Your task to perform on an android device: empty trash in google photos Image 0: 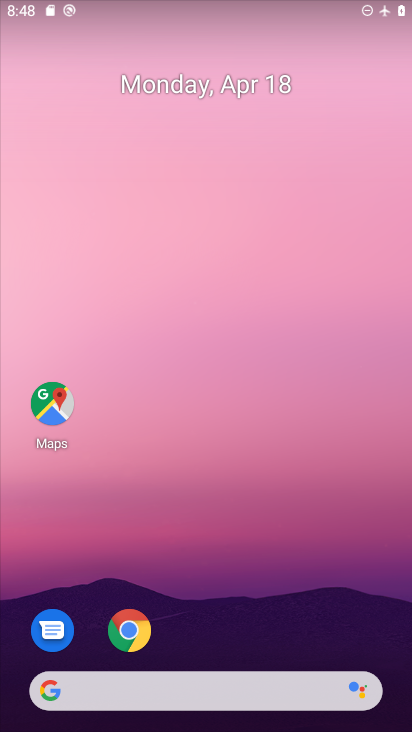
Step 0: drag from (208, 568) to (348, 8)
Your task to perform on an android device: empty trash in google photos Image 1: 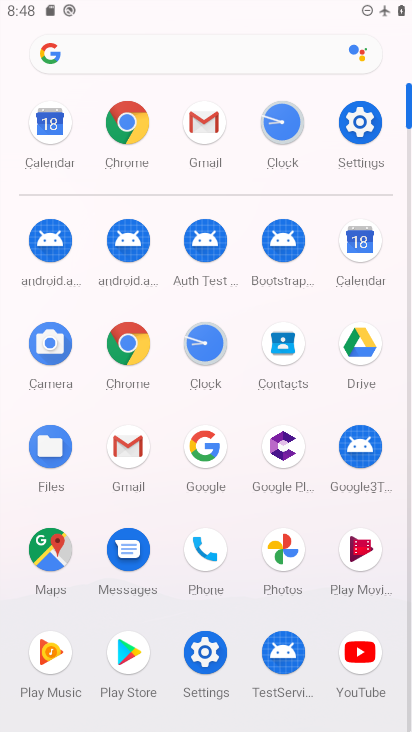
Step 1: click (284, 540)
Your task to perform on an android device: empty trash in google photos Image 2: 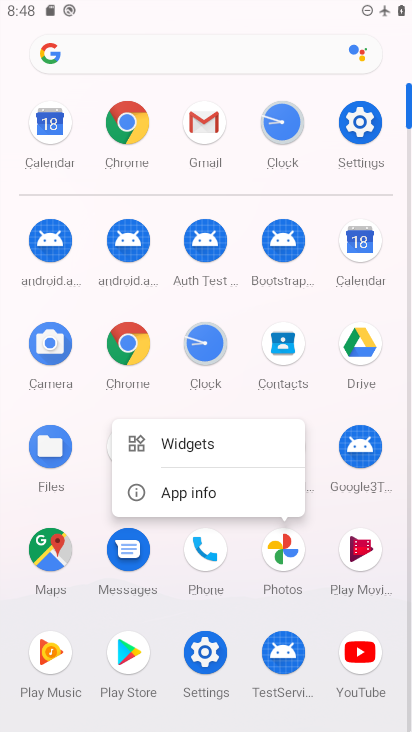
Step 2: click (282, 555)
Your task to perform on an android device: empty trash in google photos Image 3: 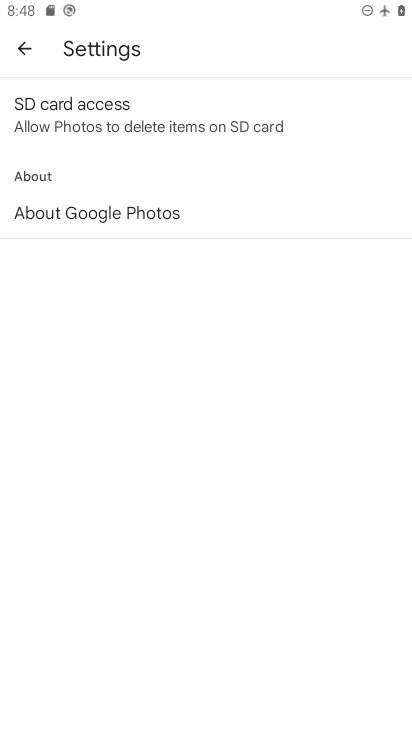
Step 3: click (29, 51)
Your task to perform on an android device: empty trash in google photos Image 4: 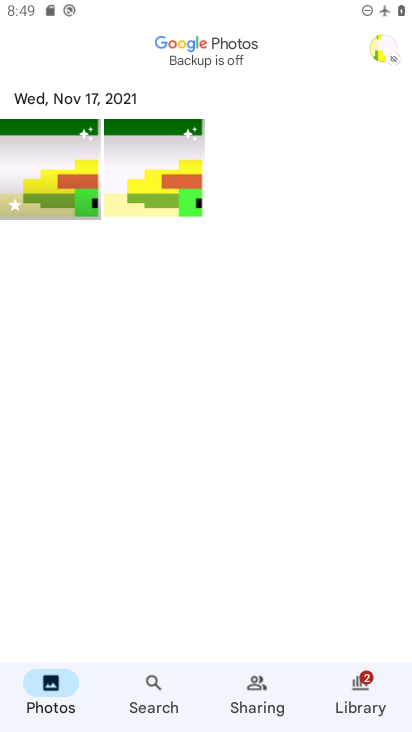
Step 4: click (364, 686)
Your task to perform on an android device: empty trash in google photos Image 5: 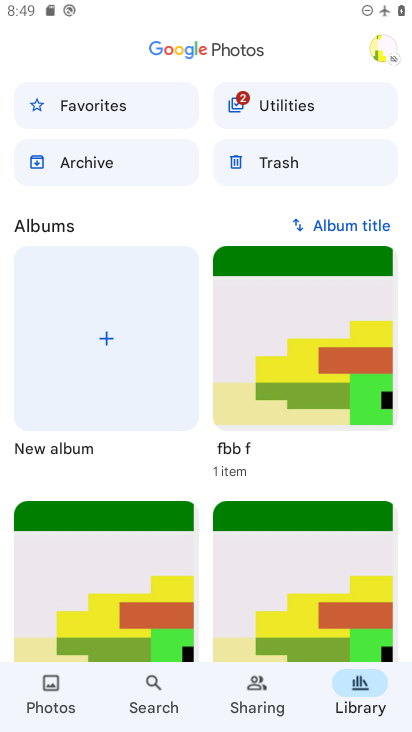
Step 5: click (299, 170)
Your task to perform on an android device: empty trash in google photos Image 6: 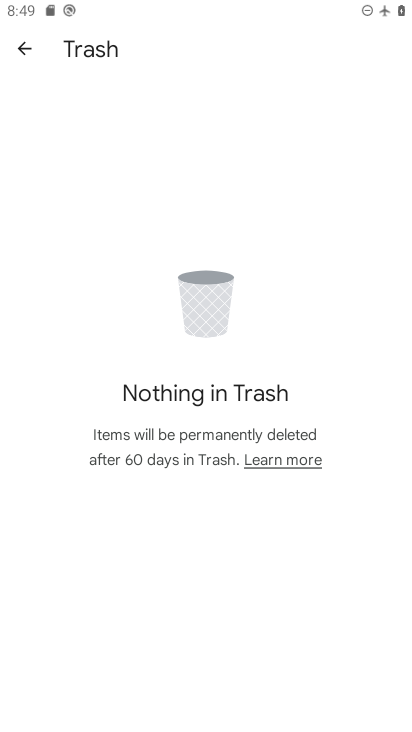
Step 6: task complete